Your task to perform on an android device: Empty the shopping cart on costco.com. Add bose soundsport free to the cart on costco.com Image 0: 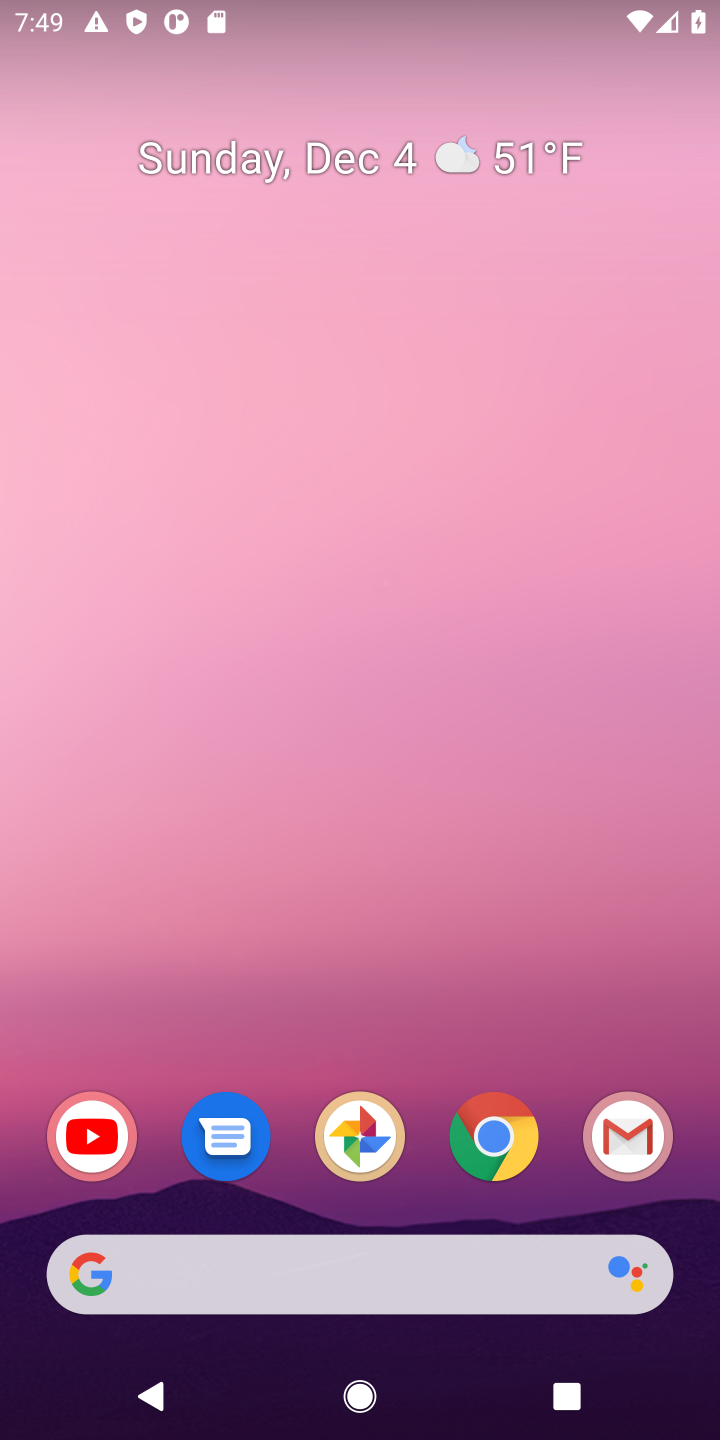
Step 0: click (491, 1139)
Your task to perform on an android device: Empty the shopping cart on costco.com. Add bose soundsport free to the cart on costco.com Image 1: 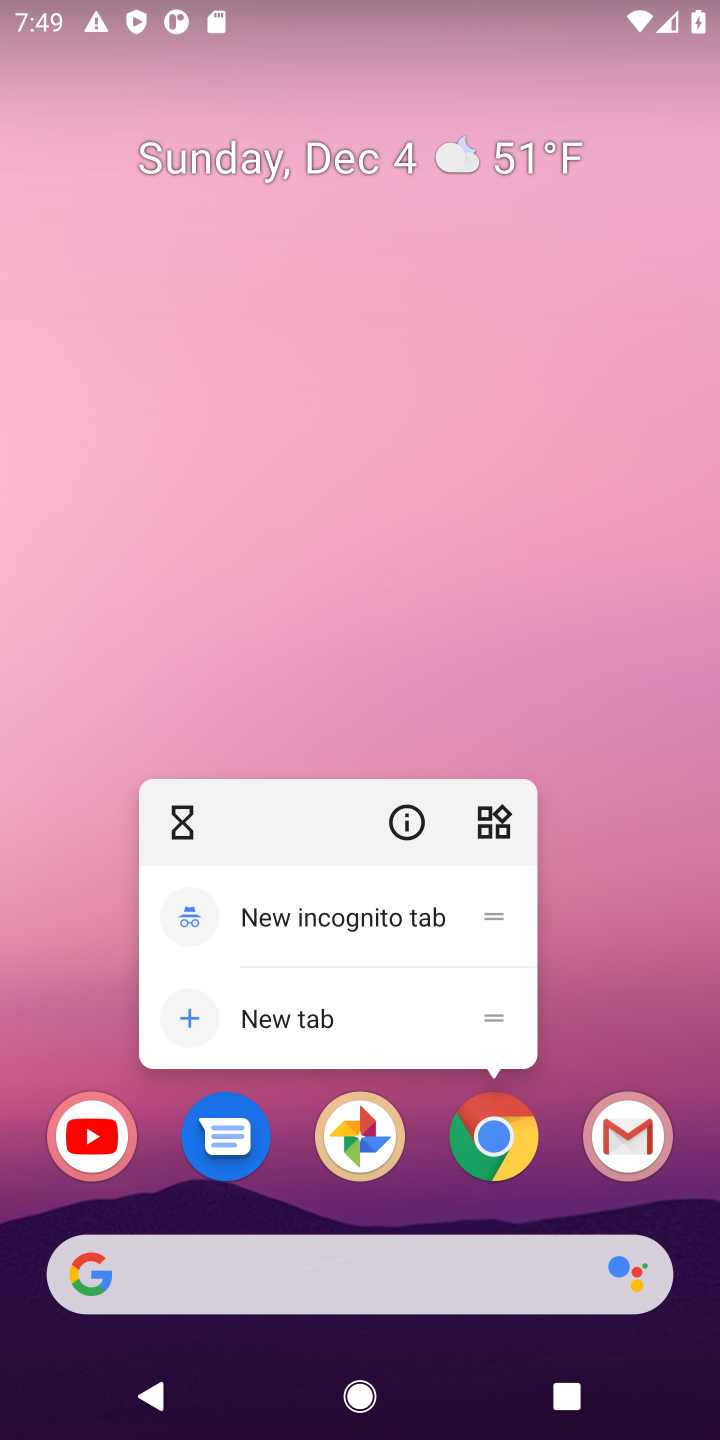
Step 1: click (491, 1139)
Your task to perform on an android device: Empty the shopping cart on costco.com. Add bose soundsport free to the cart on costco.com Image 2: 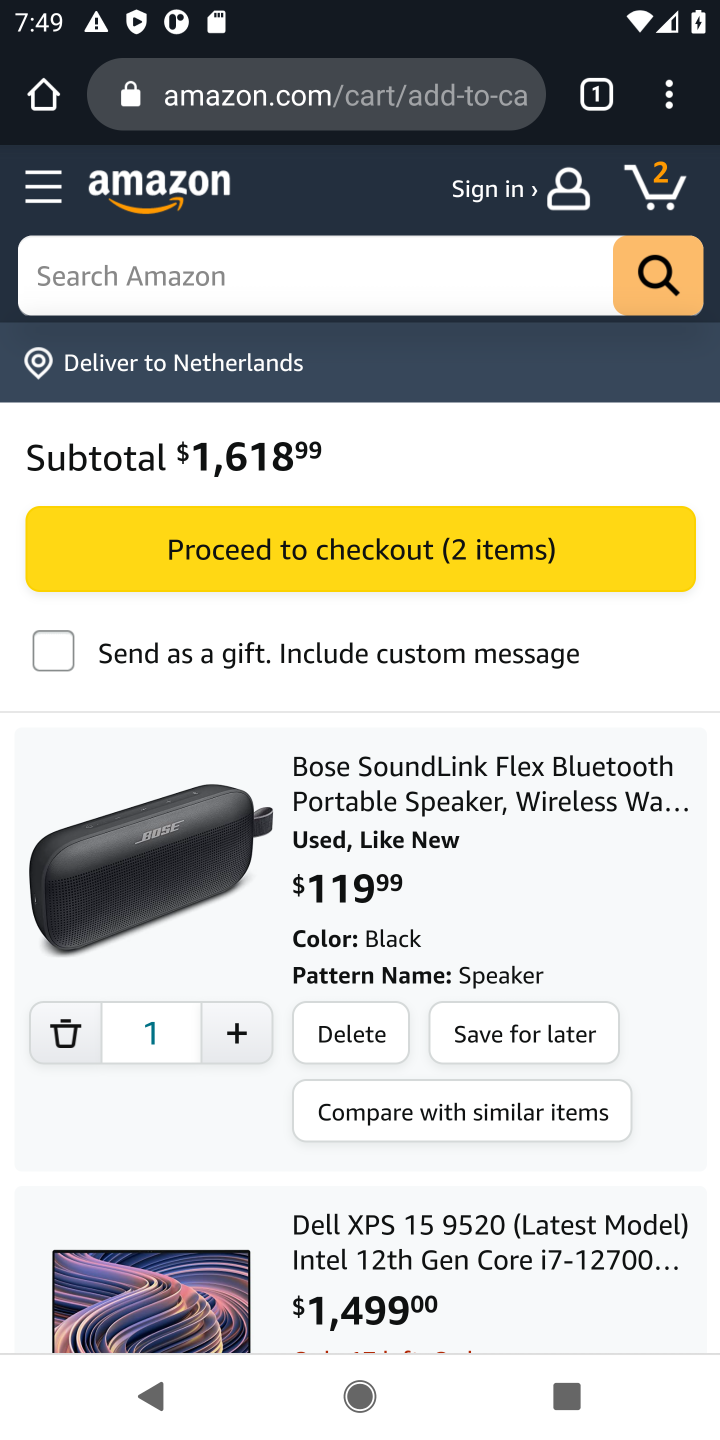
Step 2: click (343, 93)
Your task to perform on an android device: Empty the shopping cart on costco.com. Add bose soundsport free to the cart on costco.com Image 3: 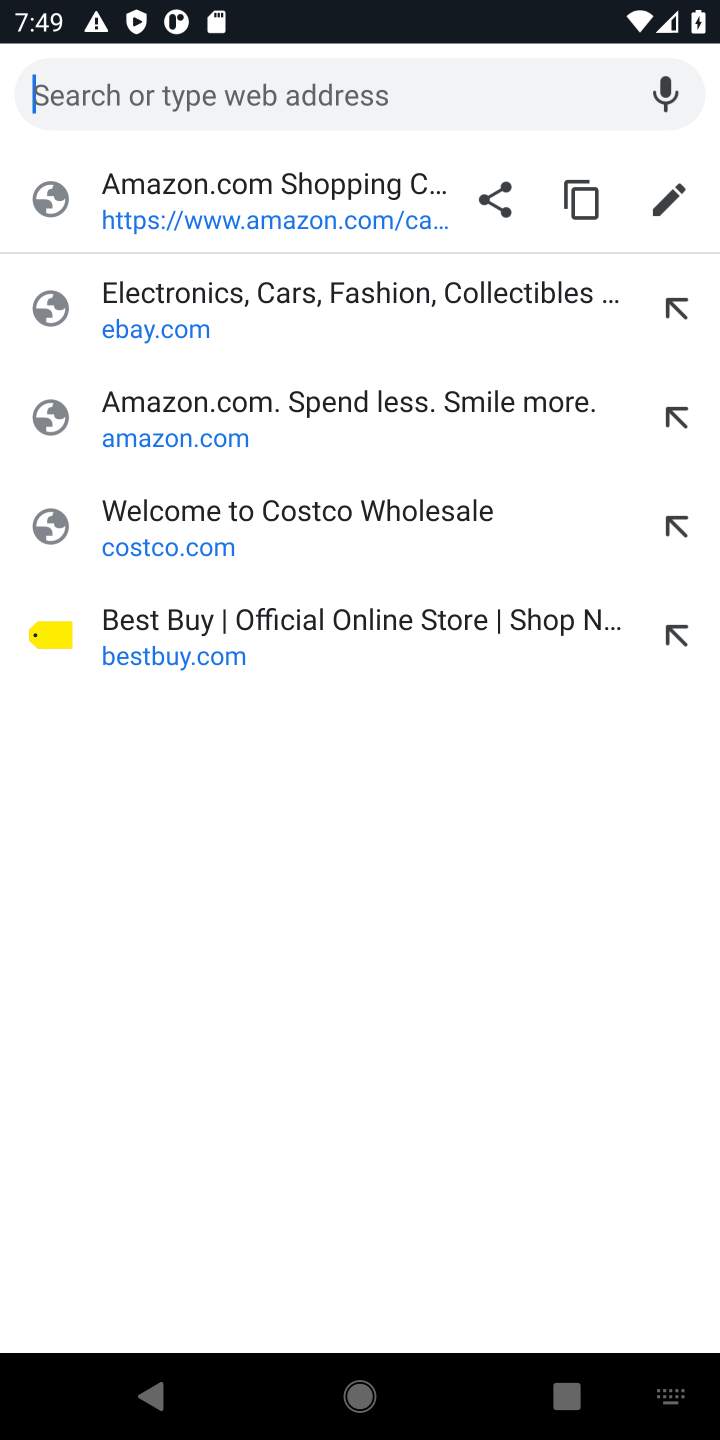
Step 3: click (267, 518)
Your task to perform on an android device: Empty the shopping cart on costco.com. Add bose soundsport free to the cart on costco.com Image 4: 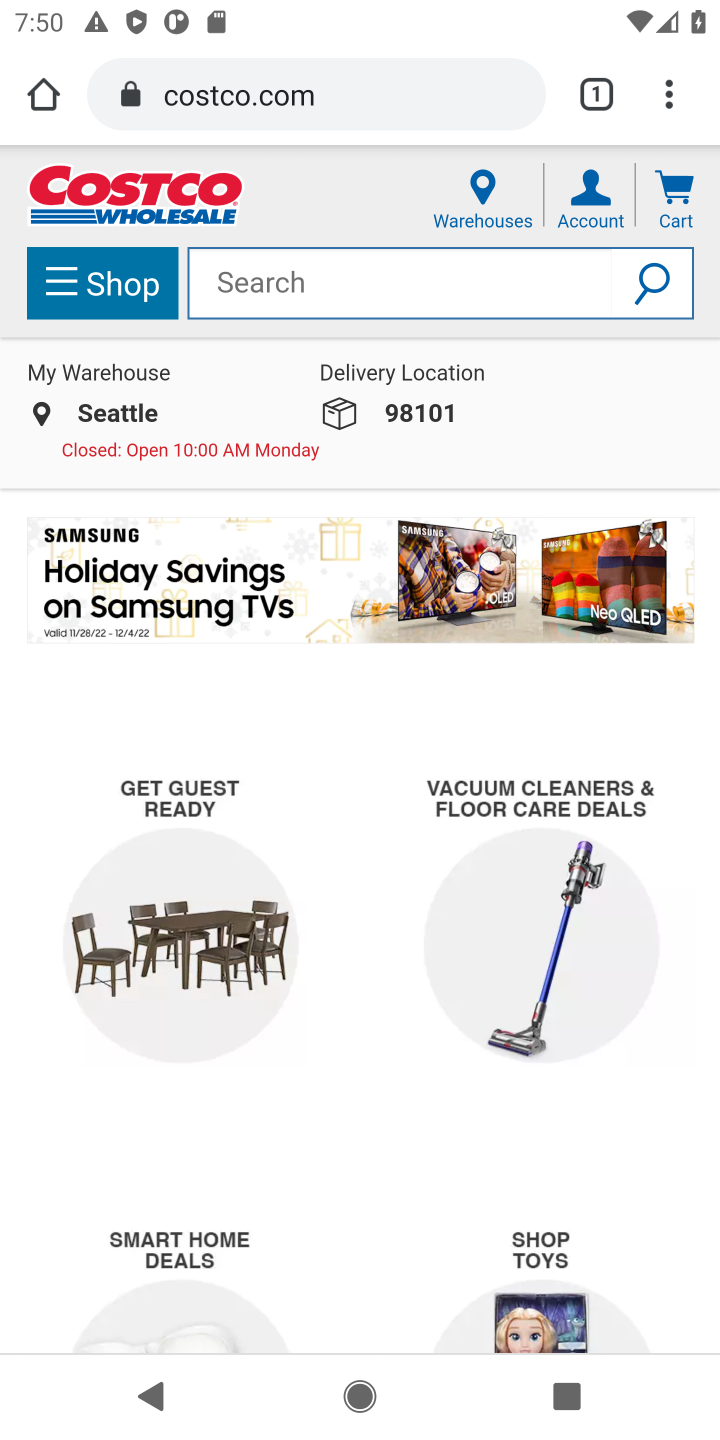
Step 4: click (672, 175)
Your task to perform on an android device: Empty the shopping cart on costco.com. Add bose soundsport free to the cart on costco.com Image 5: 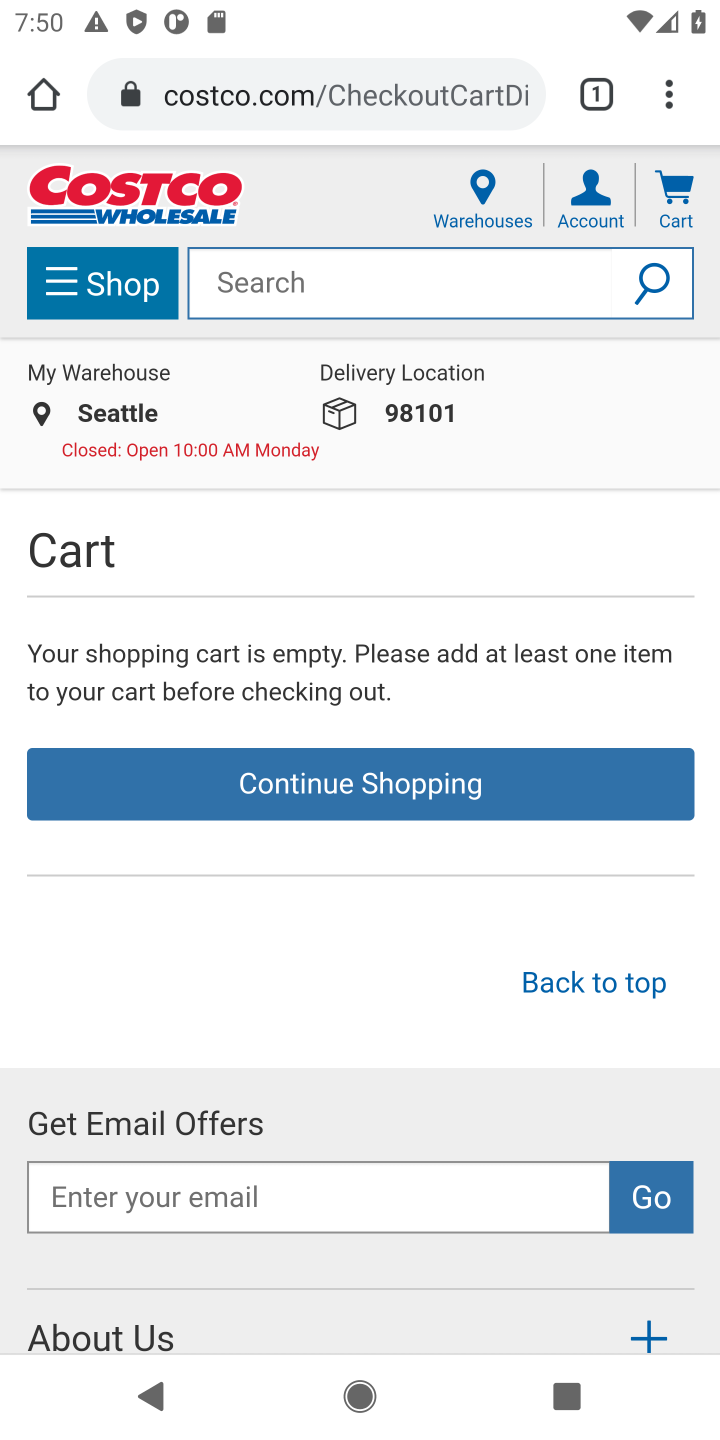
Step 5: click (405, 285)
Your task to perform on an android device: Empty the shopping cart on costco.com. Add bose soundsport free to the cart on costco.com Image 6: 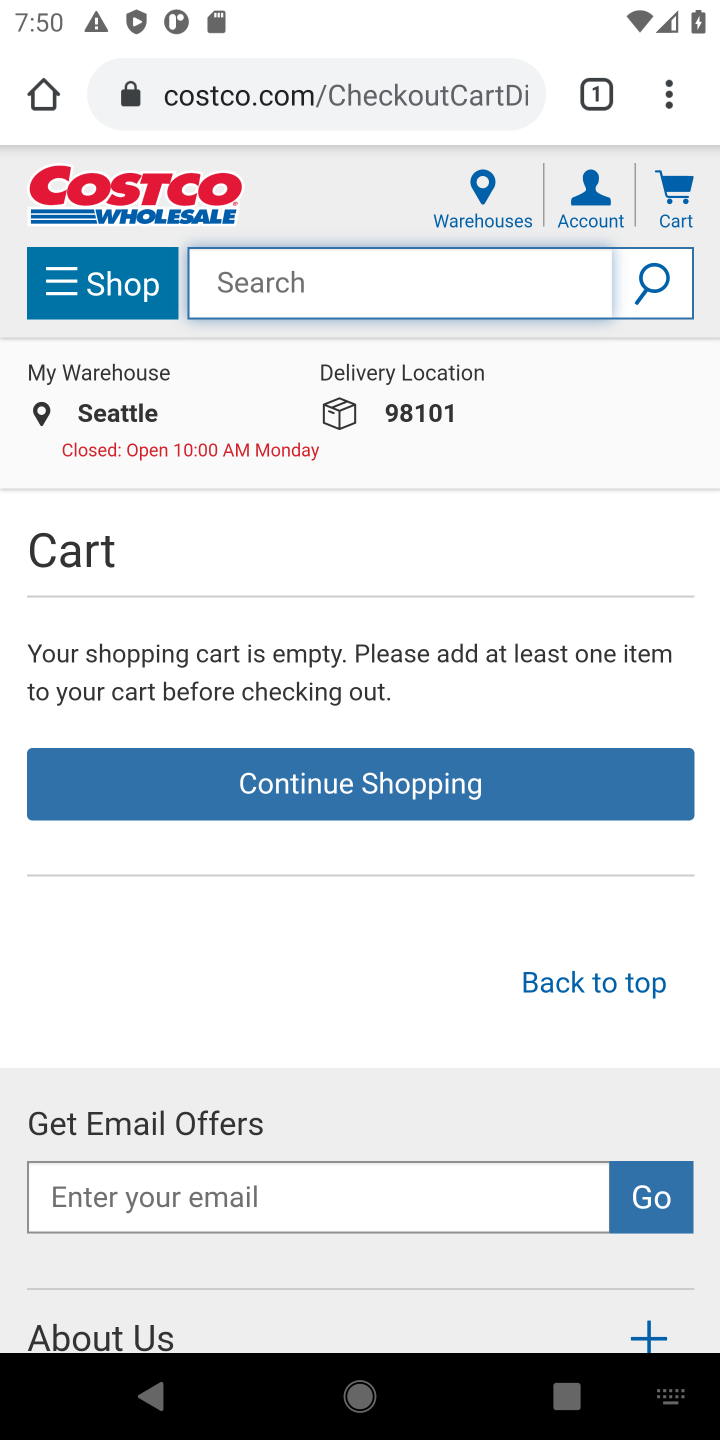
Step 6: type "boss soundsport free"
Your task to perform on an android device: Empty the shopping cart on costco.com. Add bose soundsport free to the cart on costco.com Image 7: 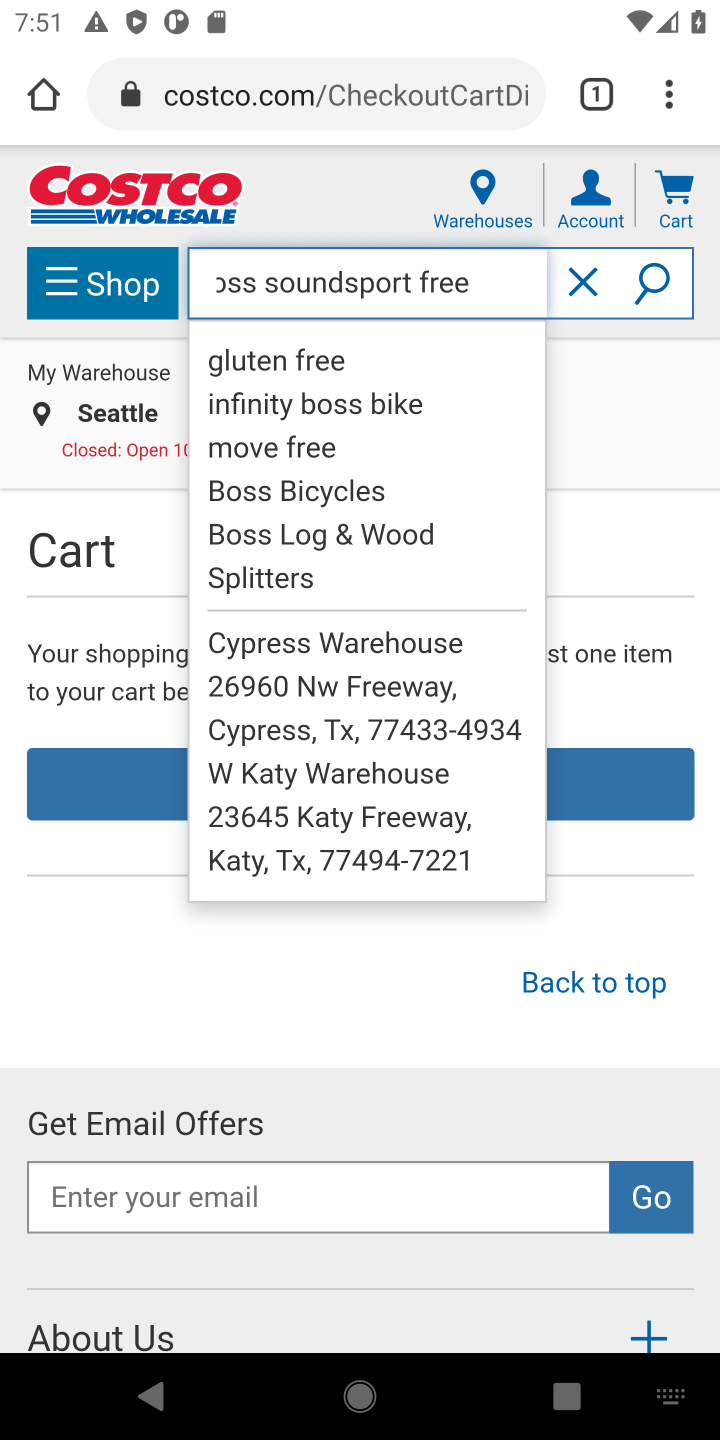
Step 7: click (659, 278)
Your task to perform on an android device: Empty the shopping cart on costco.com. Add bose soundsport free to the cart on costco.com Image 8: 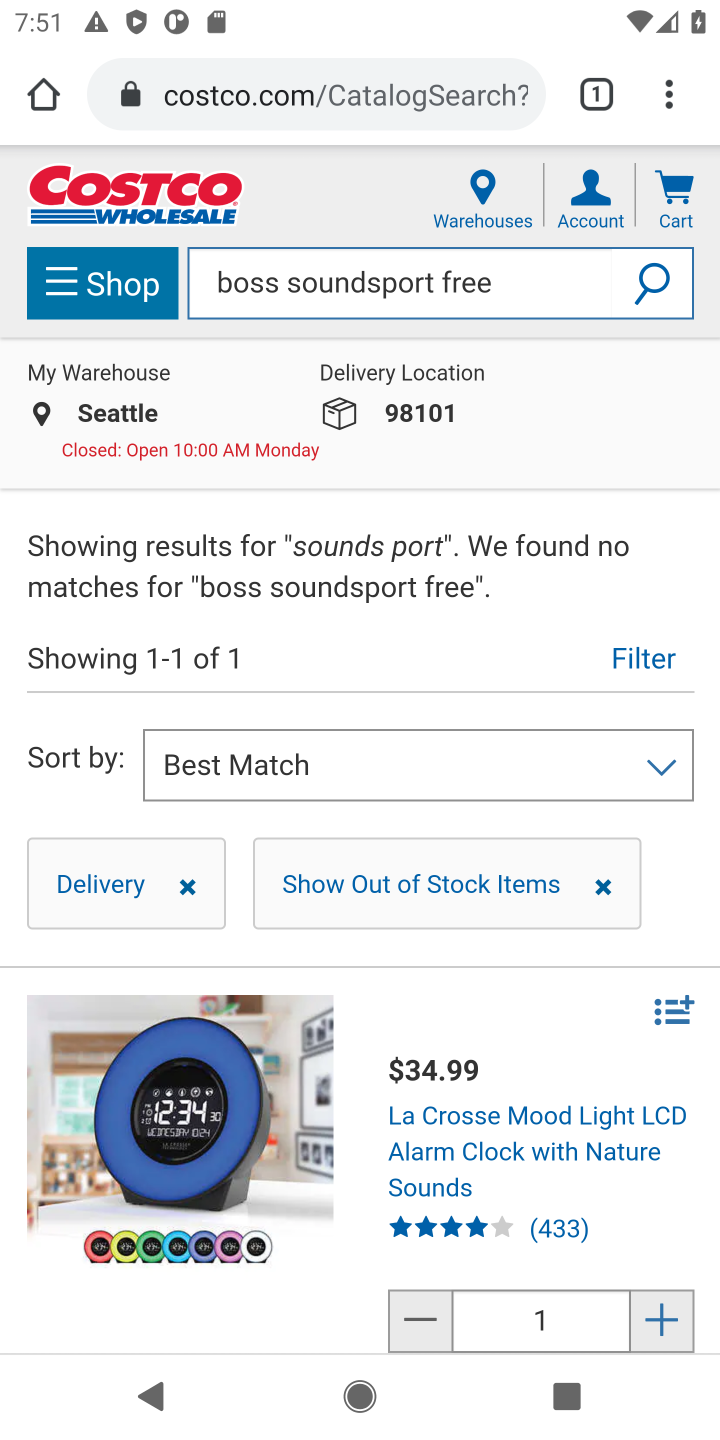
Step 8: task complete